Your task to perform on an android device: Open the Play Movies app and select the watchlist tab. Image 0: 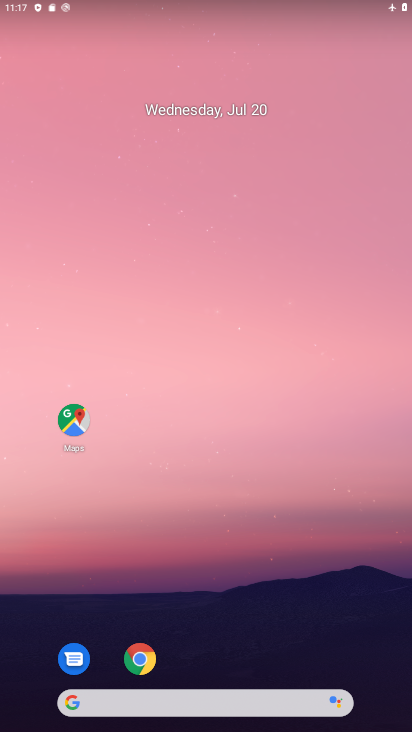
Step 0: drag from (213, 657) to (213, 305)
Your task to perform on an android device: Open the Play Movies app and select the watchlist tab. Image 1: 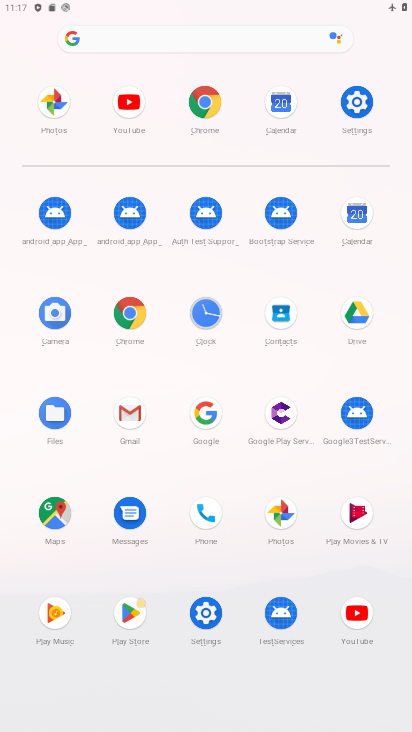
Step 1: click (356, 529)
Your task to perform on an android device: Open the Play Movies app and select the watchlist tab. Image 2: 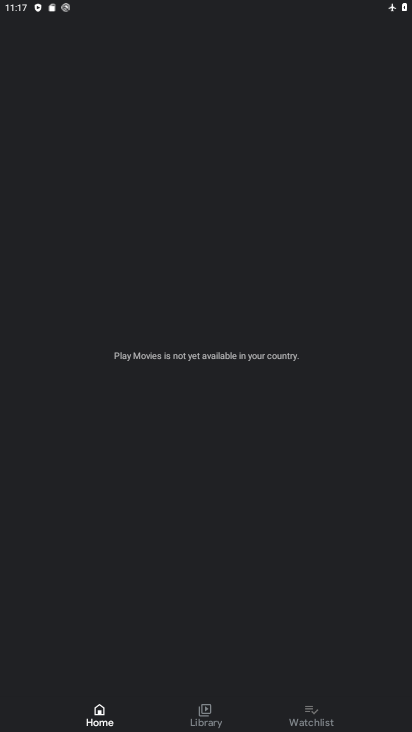
Step 2: click (306, 714)
Your task to perform on an android device: Open the Play Movies app and select the watchlist tab. Image 3: 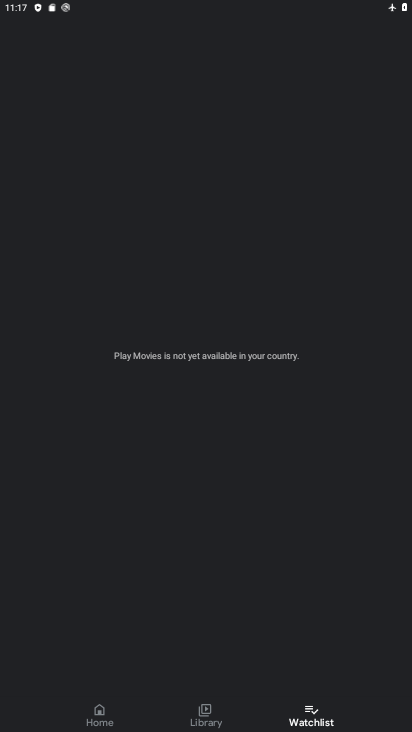
Step 3: task complete